Your task to perform on an android device: Check the weather Image 0: 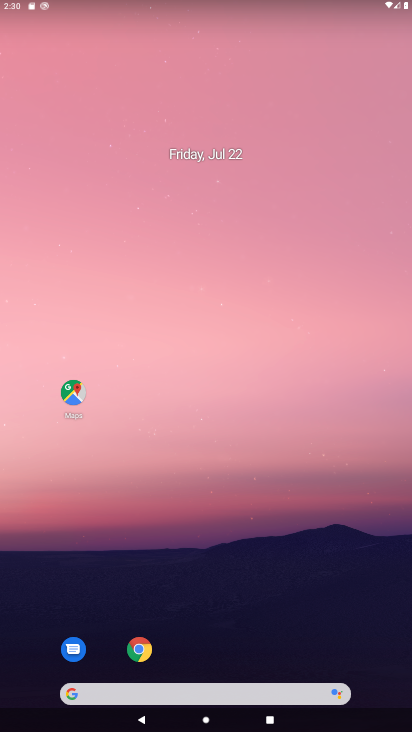
Step 0: drag from (225, 725) to (213, 139)
Your task to perform on an android device: Check the weather Image 1: 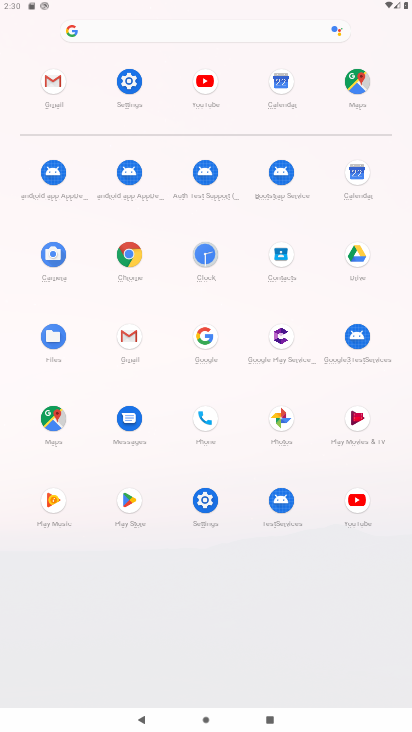
Step 1: click (207, 339)
Your task to perform on an android device: Check the weather Image 2: 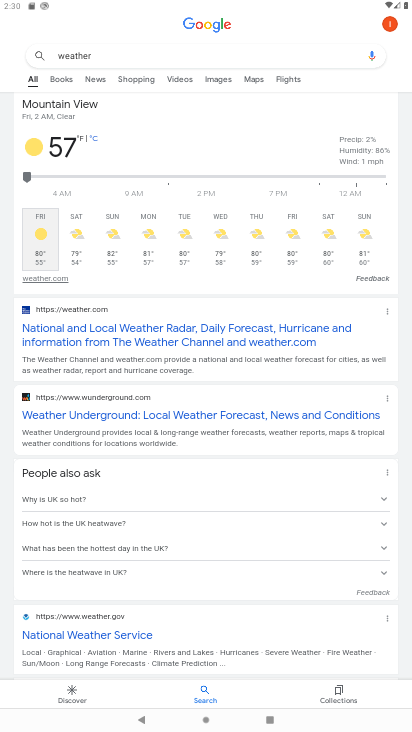
Step 2: task complete